Your task to perform on an android device: check google app version Image 0: 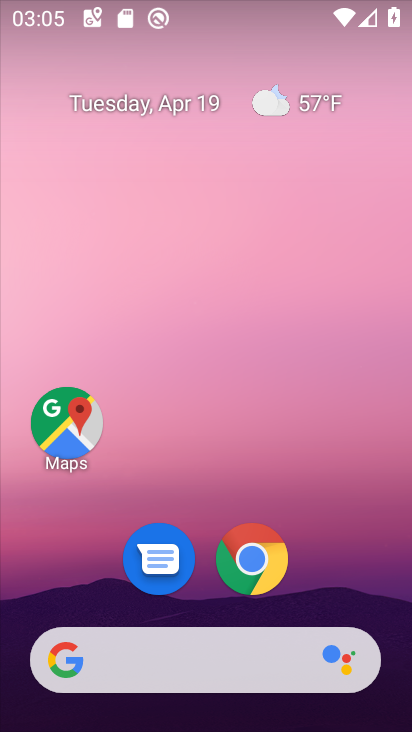
Step 0: press home button
Your task to perform on an android device: check google app version Image 1: 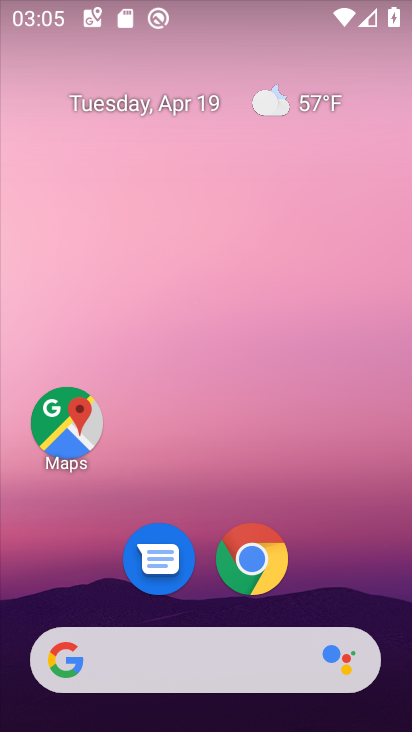
Step 1: drag from (208, 577) to (221, 92)
Your task to perform on an android device: check google app version Image 2: 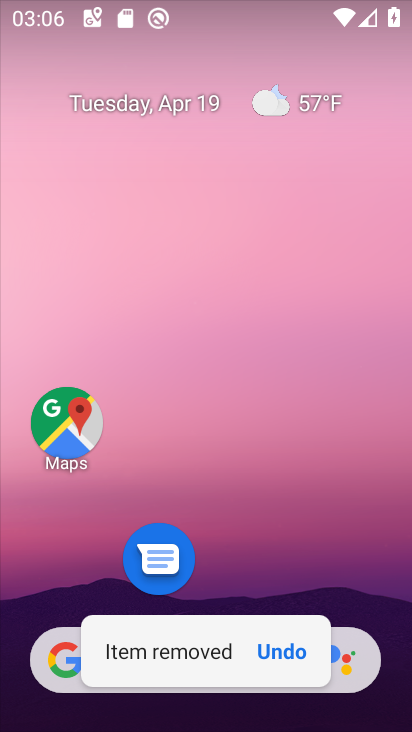
Step 2: click (254, 639)
Your task to perform on an android device: check google app version Image 3: 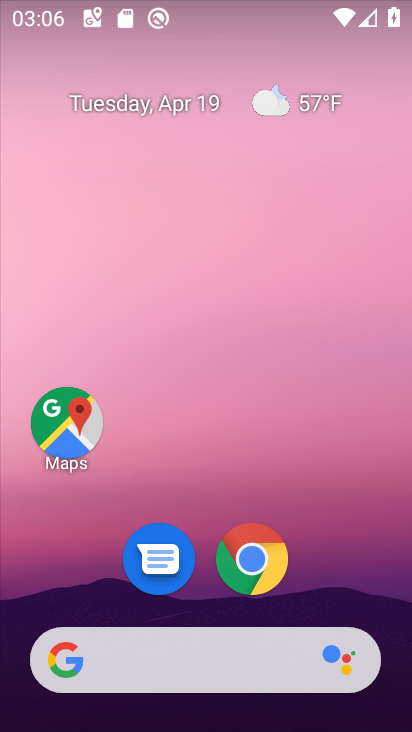
Step 3: drag from (322, 584) to (350, 0)
Your task to perform on an android device: check google app version Image 4: 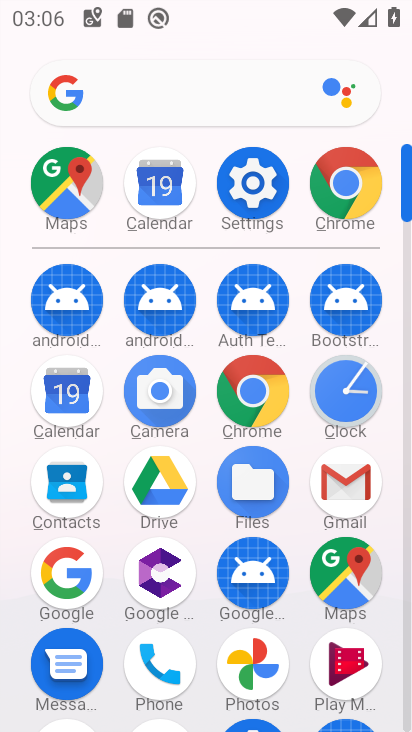
Step 4: click (64, 565)
Your task to perform on an android device: check google app version Image 5: 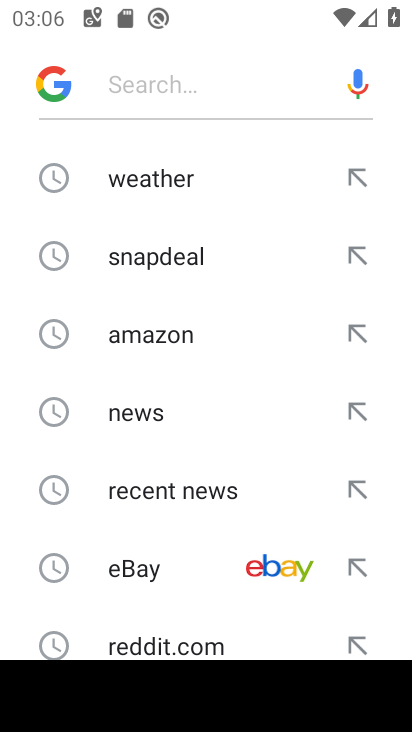
Step 5: press back button
Your task to perform on an android device: check google app version Image 6: 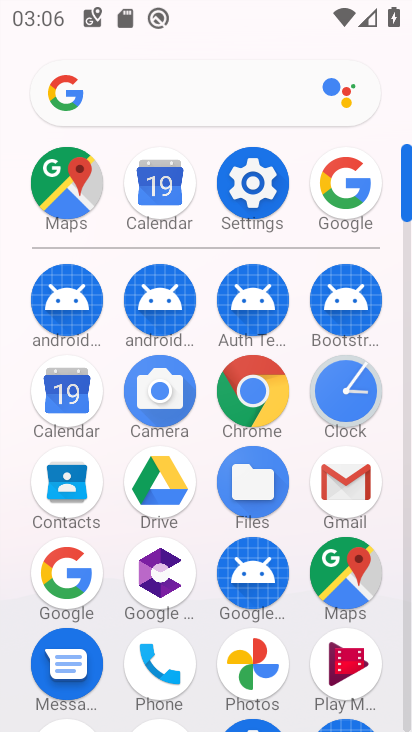
Step 6: click (68, 572)
Your task to perform on an android device: check google app version Image 7: 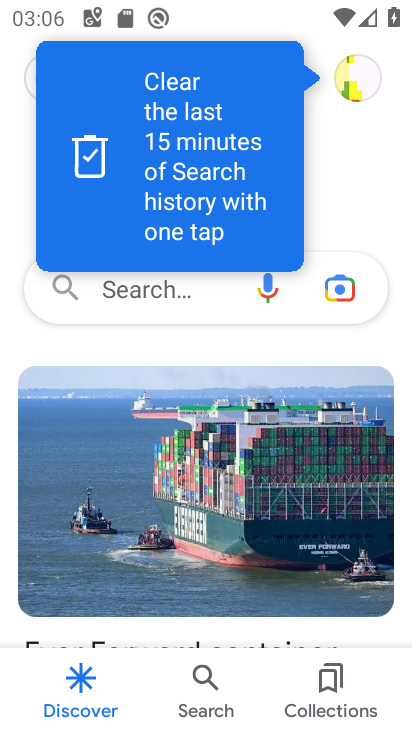
Step 7: click (343, 66)
Your task to perform on an android device: check google app version Image 8: 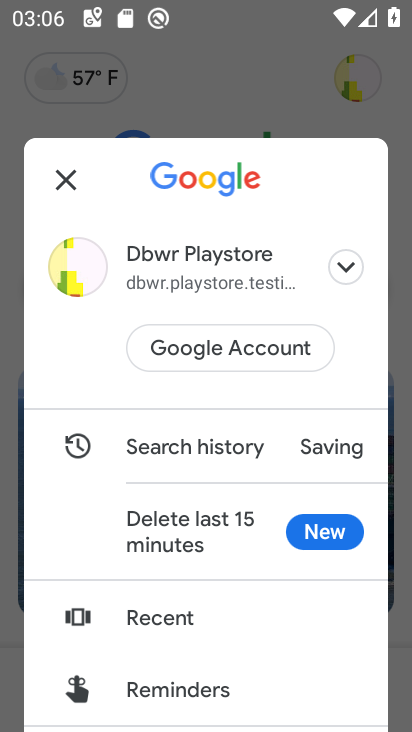
Step 8: drag from (177, 654) to (177, 161)
Your task to perform on an android device: check google app version Image 9: 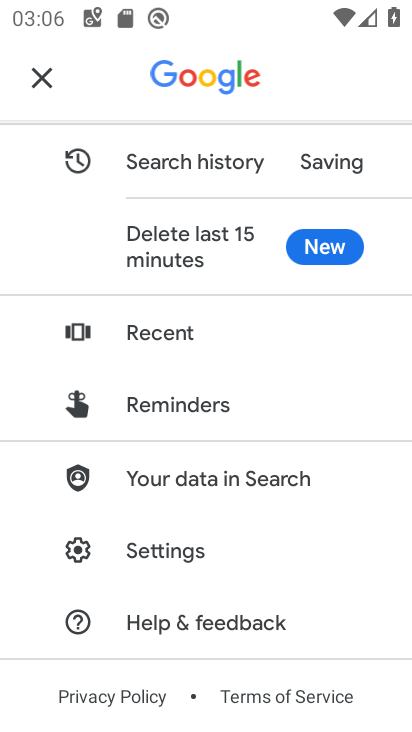
Step 9: click (163, 548)
Your task to perform on an android device: check google app version Image 10: 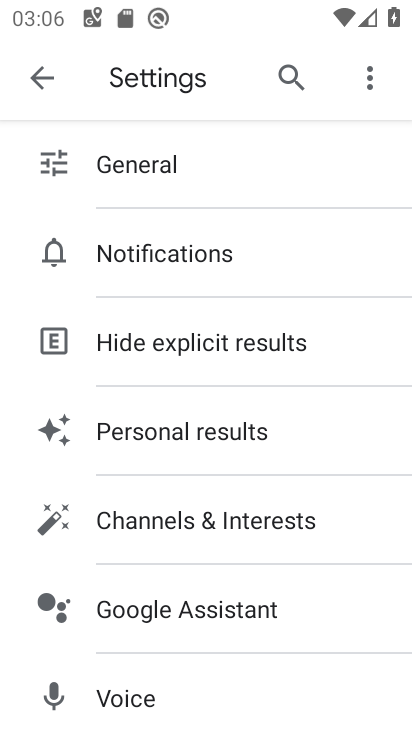
Step 10: click (160, 704)
Your task to perform on an android device: check google app version Image 11: 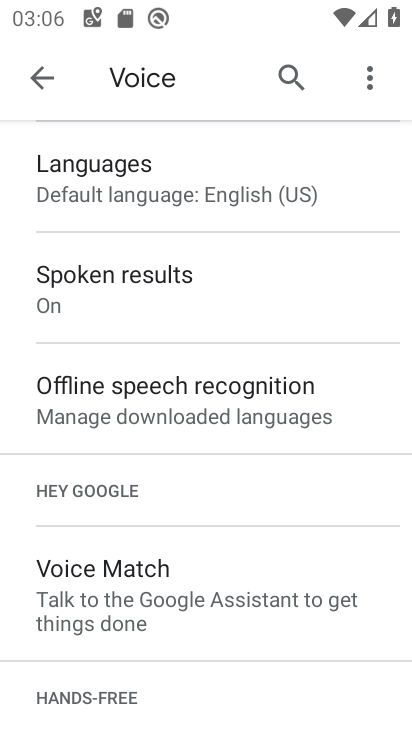
Step 11: drag from (174, 644) to (204, 191)
Your task to perform on an android device: check google app version Image 12: 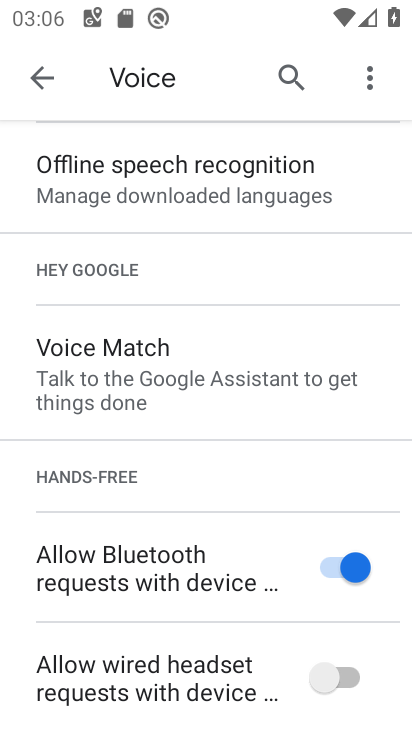
Step 12: drag from (153, 670) to (176, 209)
Your task to perform on an android device: check google app version Image 13: 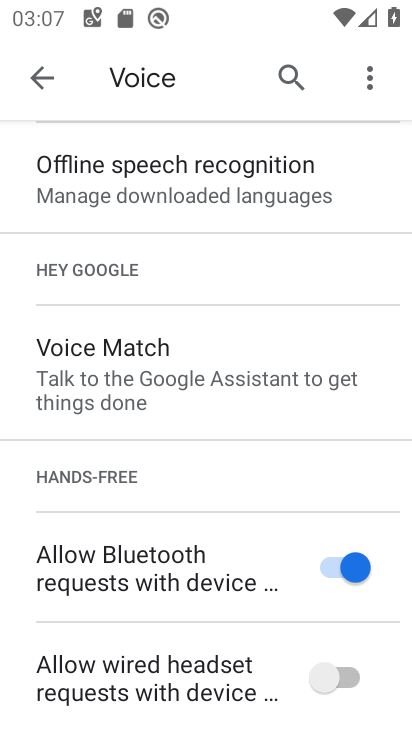
Step 13: drag from (142, 624) to (168, 130)
Your task to perform on an android device: check google app version Image 14: 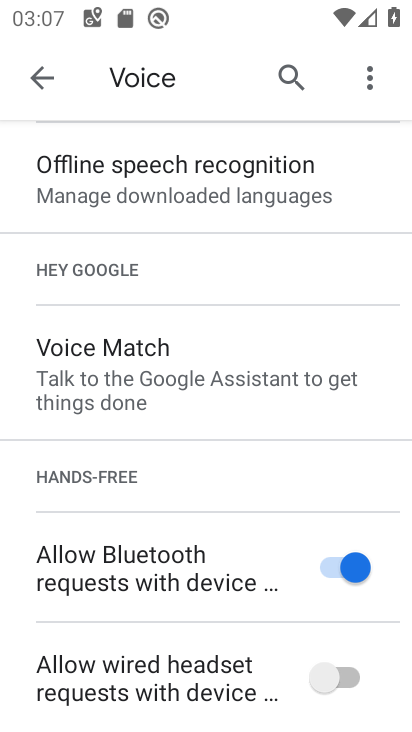
Step 14: drag from (179, 278) to (179, 672)
Your task to perform on an android device: check google app version Image 15: 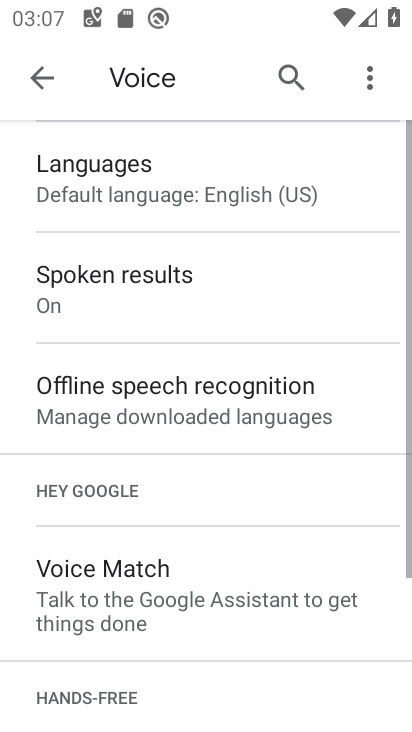
Step 15: drag from (168, 265) to (168, 672)
Your task to perform on an android device: check google app version Image 16: 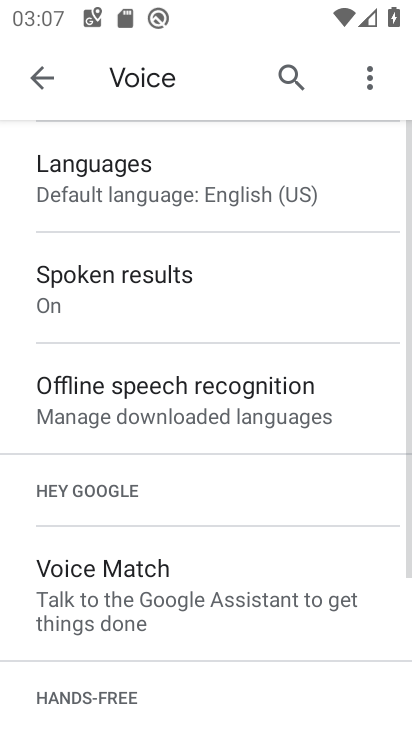
Step 16: click (49, 86)
Your task to perform on an android device: check google app version Image 17: 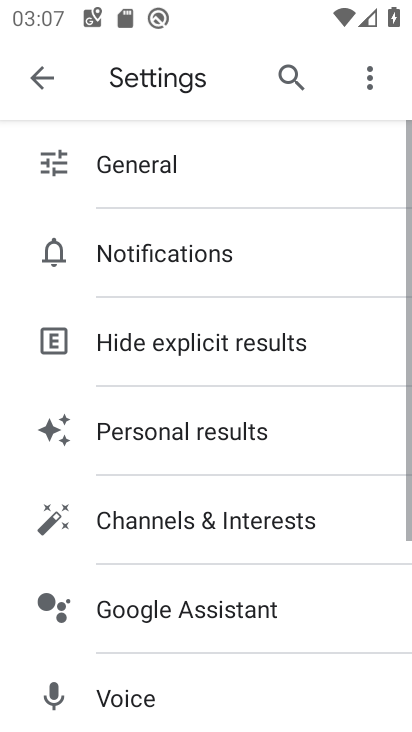
Step 17: drag from (149, 505) to (171, 0)
Your task to perform on an android device: check google app version Image 18: 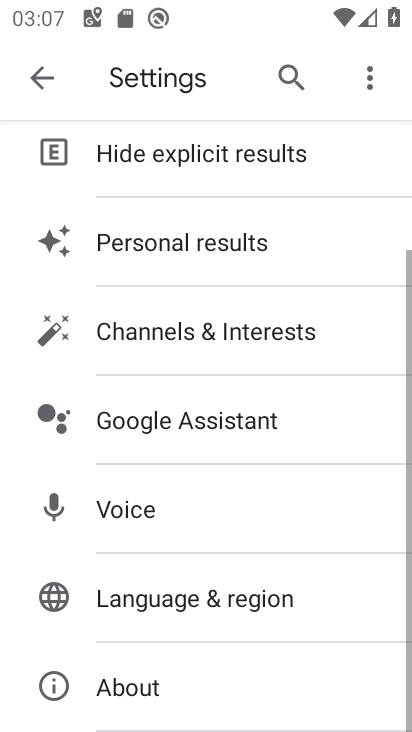
Step 18: click (144, 671)
Your task to perform on an android device: check google app version Image 19: 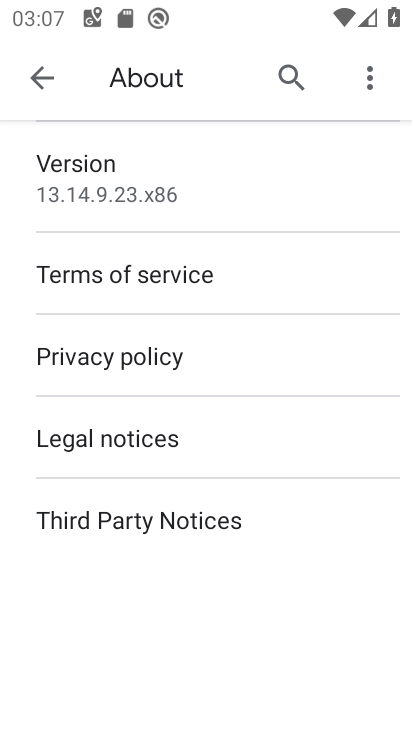
Step 19: task complete